Your task to perform on an android device: add a label to a message in the gmail app Image 0: 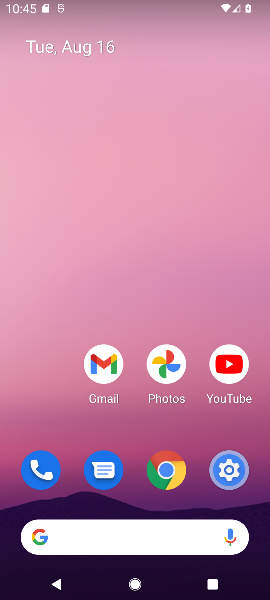
Step 0: click (109, 366)
Your task to perform on an android device: add a label to a message in the gmail app Image 1: 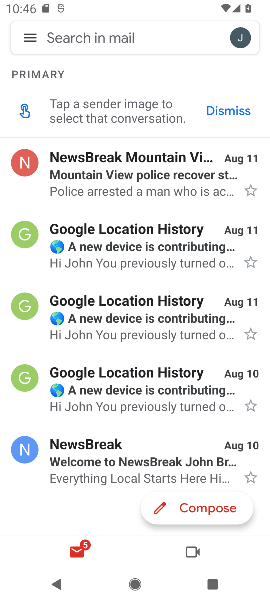
Step 1: click (136, 165)
Your task to perform on an android device: add a label to a message in the gmail app Image 2: 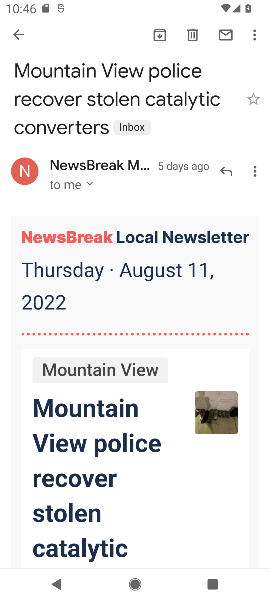
Step 2: click (254, 38)
Your task to perform on an android device: add a label to a message in the gmail app Image 3: 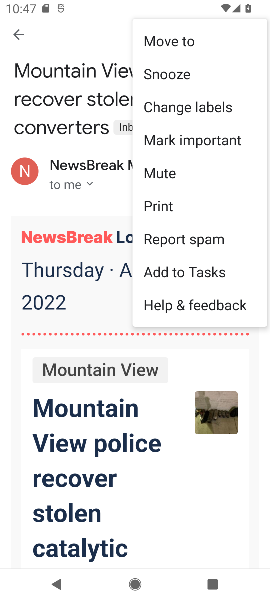
Step 3: press home button
Your task to perform on an android device: add a label to a message in the gmail app Image 4: 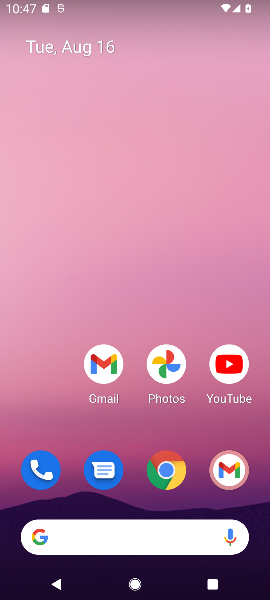
Step 4: click (100, 361)
Your task to perform on an android device: add a label to a message in the gmail app Image 5: 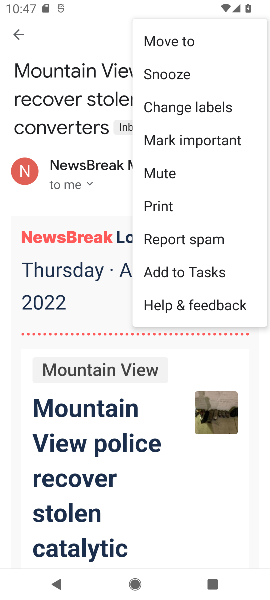
Step 5: click (194, 143)
Your task to perform on an android device: add a label to a message in the gmail app Image 6: 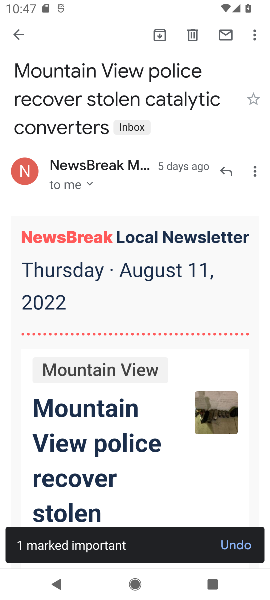
Step 6: task complete